Your task to perform on an android device: change the clock display to show seconds Image 0: 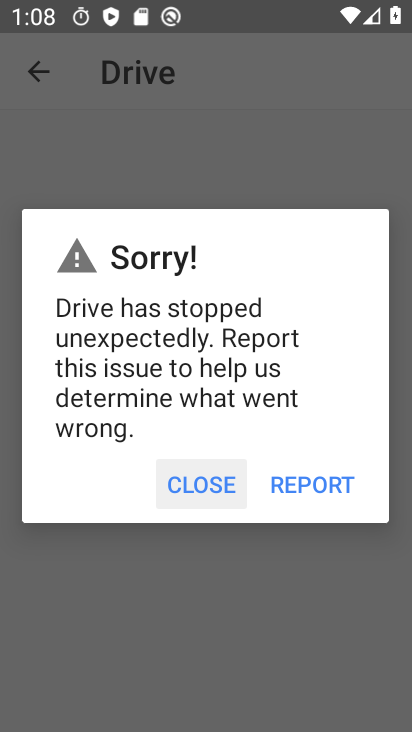
Step 0: press back button
Your task to perform on an android device: change the clock display to show seconds Image 1: 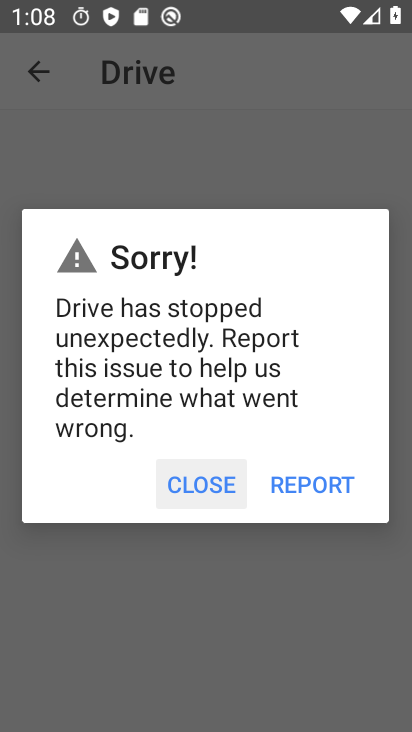
Step 1: press home button
Your task to perform on an android device: change the clock display to show seconds Image 2: 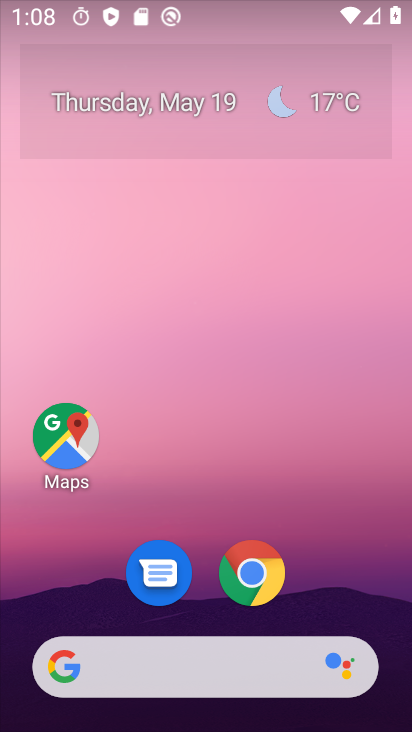
Step 2: drag from (182, 583) to (287, 107)
Your task to perform on an android device: change the clock display to show seconds Image 3: 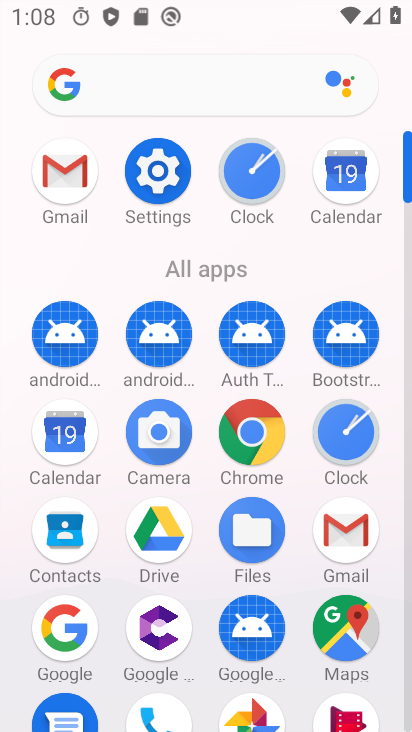
Step 3: click (248, 188)
Your task to perform on an android device: change the clock display to show seconds Image 4: 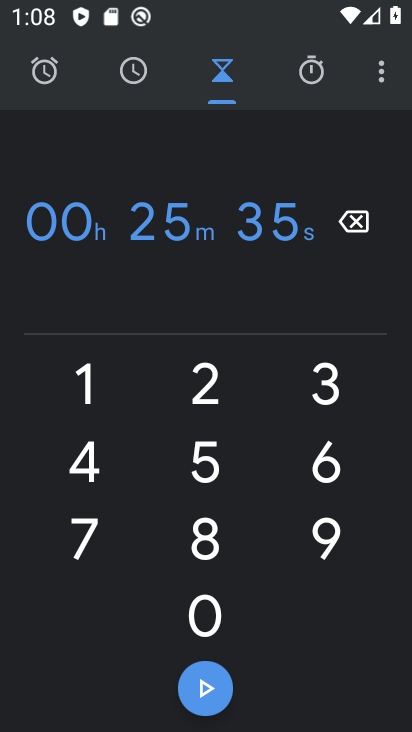
Step 4: drag from (382, 74) to (321, 145)
Your task to perform on an android device: change the clock display to show seconds Image 5: 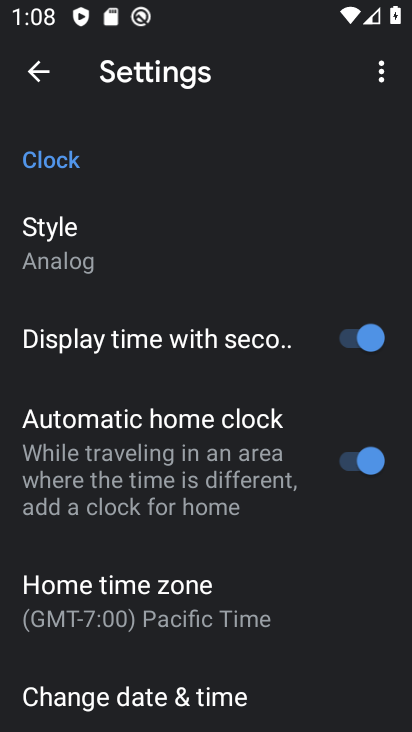
Step 5: click (80, 245)
Your task to perform on an android device: change the clock display to show seconds Image 6: 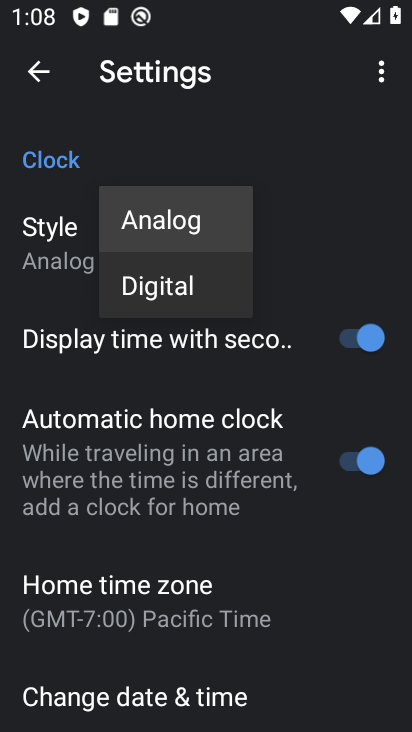
Step 6: click (155, 278)
Your task to perform on an android device: change the clock display to show seconds Image 7: 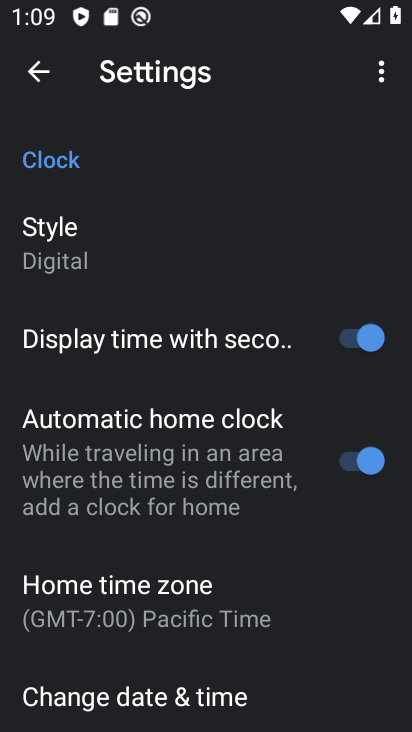
Step 7: task complete